Your task to perform on an android device: find which apps use the phone's location Image 0: 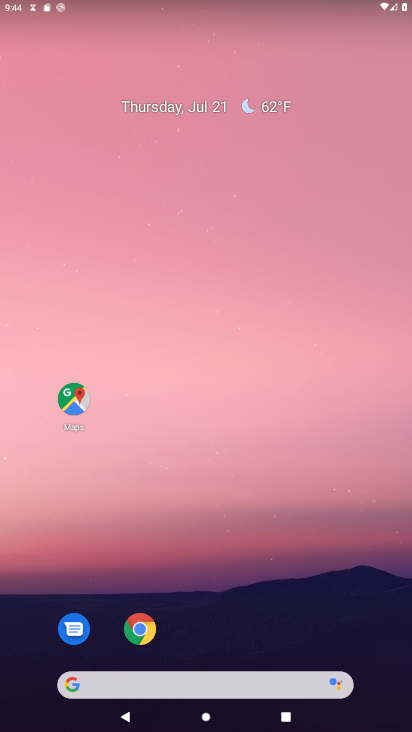
Step 0: drag from (248, 493) to (205, 317)
Your task to perform on an android device: find which apps use the phone's location Image 1: 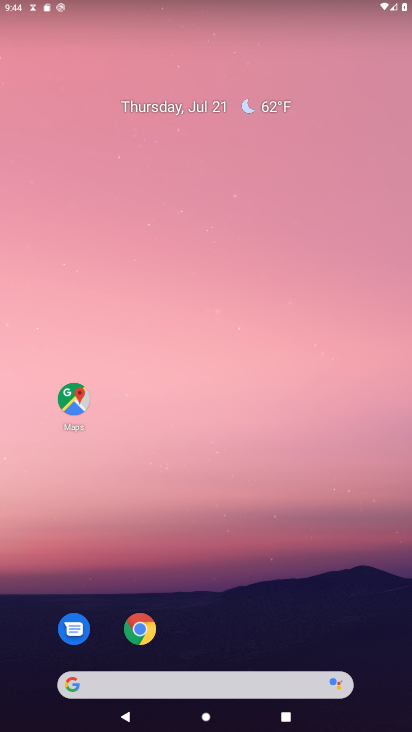
Step 1: drag from (240, 612) to (193, 78)
Your task to perform on an android device: find which apps use the phone's location Image 2: 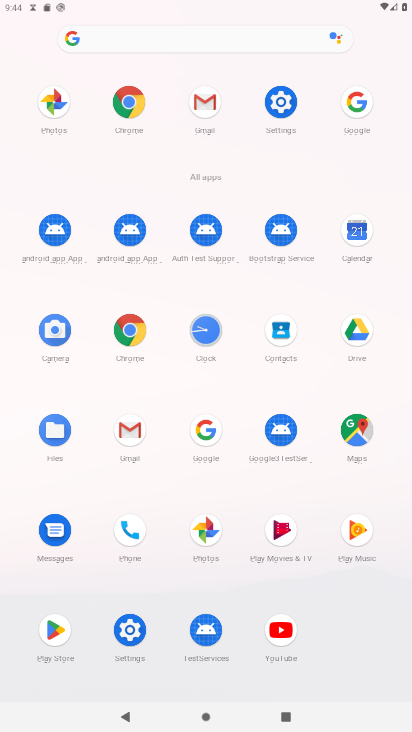
Step 2: click (271, 95)
Your task to perform on an android device: find which apps use the phone's location Image 3: 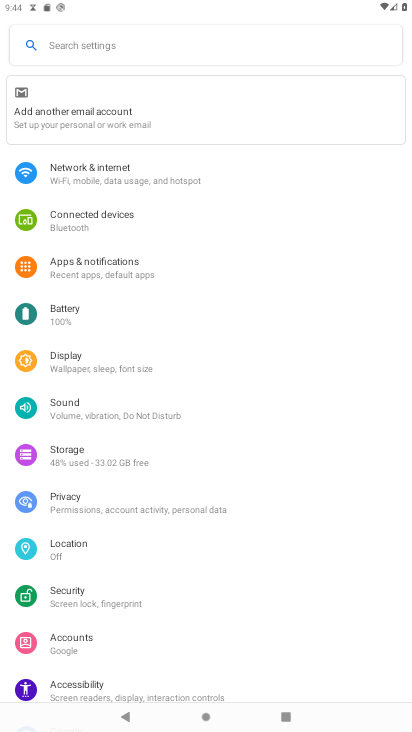
Step 3: click (95, 545)
Your task to perform on an android device: find which apps use the phone's location Image 4: 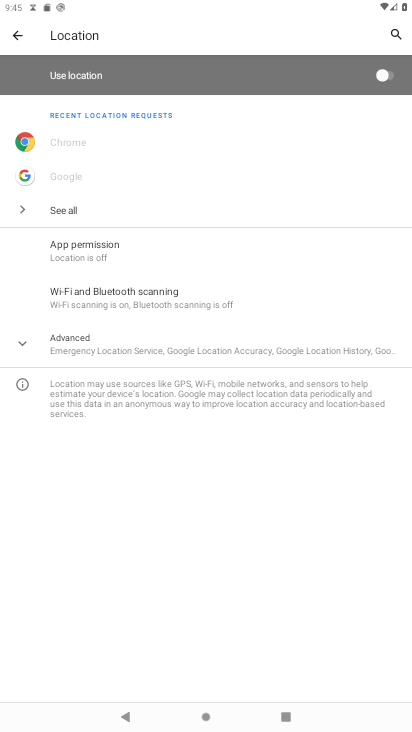
Step 4: task complete